Your task to perform on an android device: empty trash in the gmail app Image 0: 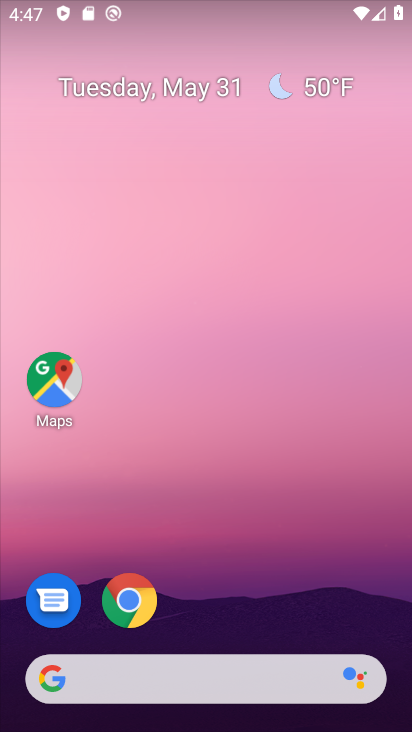
Step 0: drag from (241, 600) to (127, 87)
Your task to perform on an android device: empty trash in the gmail app Image 1: 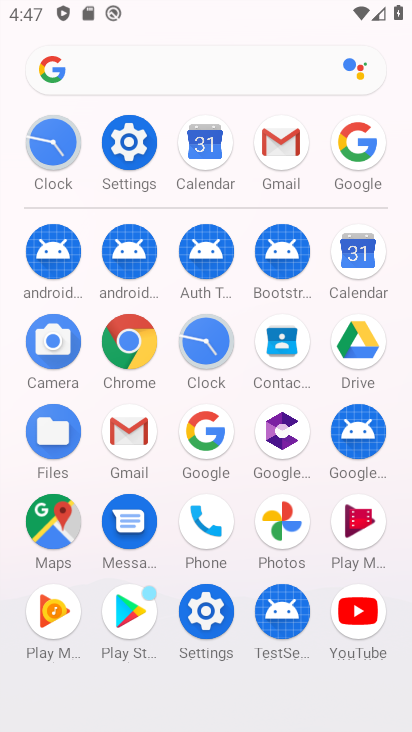
Step 1: click (279, 143)
Your task to perform on an android device: empty trash in the gmail app Image 2: 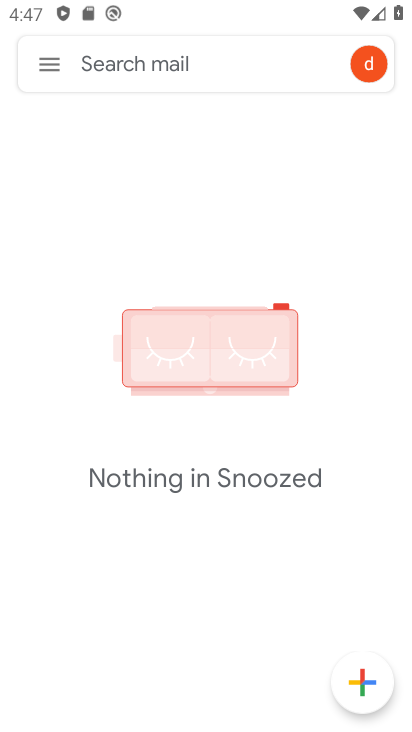
Step 2: click (54, 62)
Your task to perform on an android device: empty trash in the gmail app Image 3: 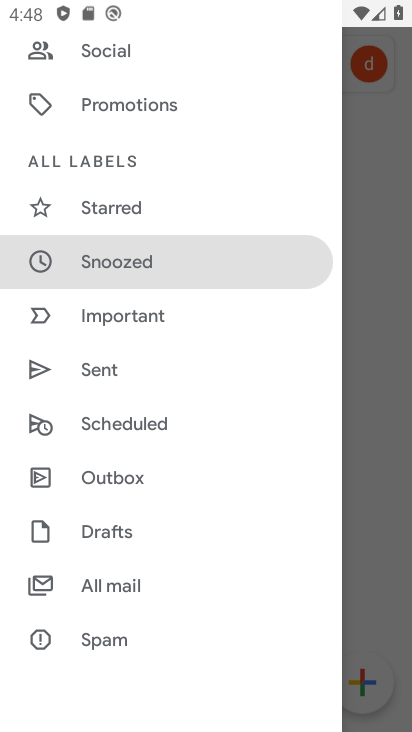
Step 3: drag from (117, 501) to (144, 269)
Your task to perform on an android device: empty trash in the gmail app Image 4: 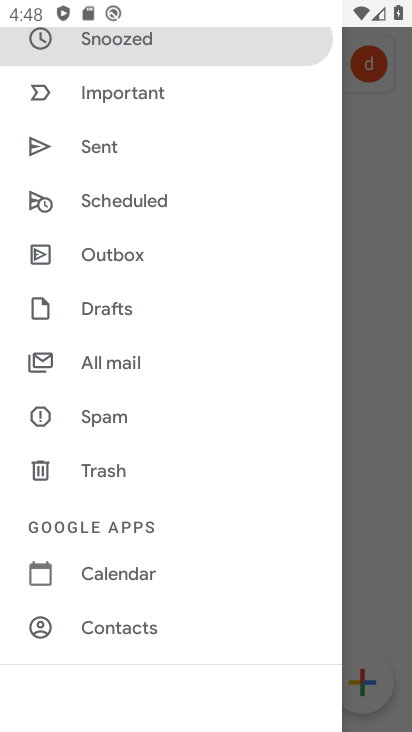
Step 4: click (107, 470)
Your task to perform on an android device: empty trash in the gmail app Image 5: 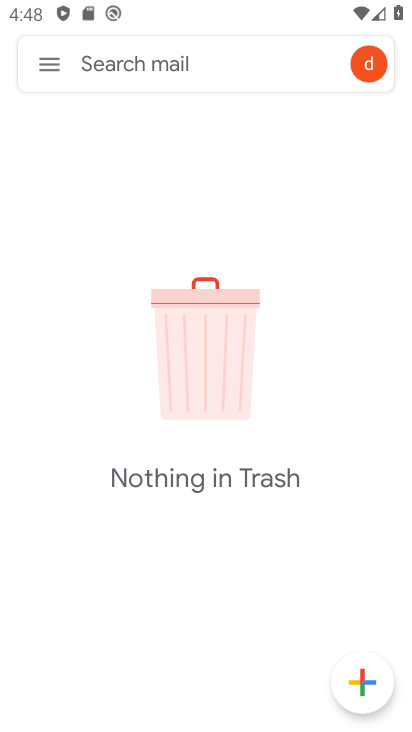
Step 5: task complete